Your task to perform on an android device: refresh tabs in the chrome app Image 0: 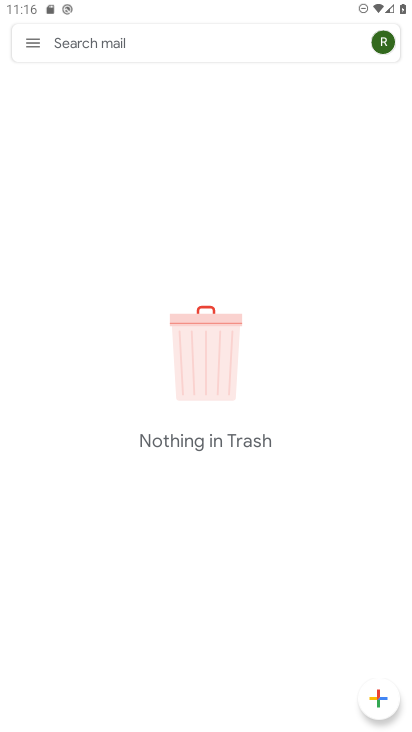
Step 0: press home button
Your task to perform on an android device: refresh tabs in the chrome app Image 1: 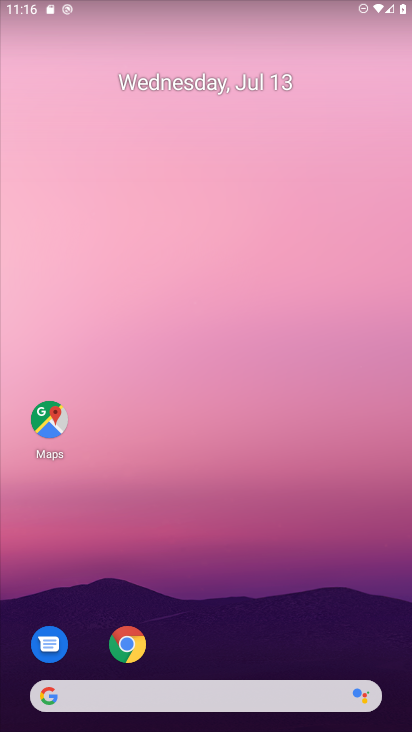
Step 1: click (125, 639)
Your task to perform on an android device: refresh tabs in the chrome app Image 2: 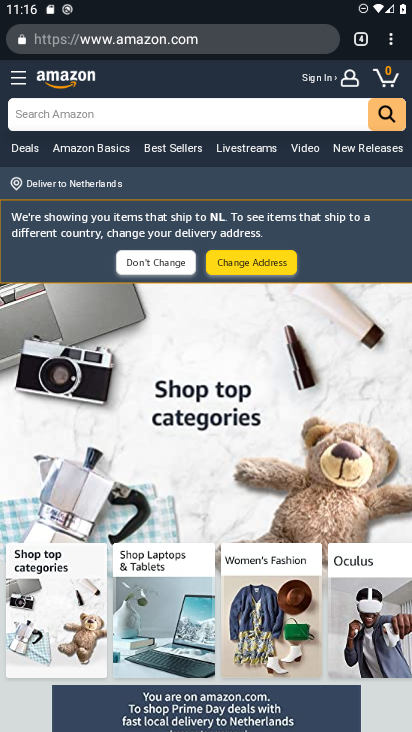
Step 2: click (394, 41)
Your task to perform on an android device: refresh tabs in the chrome app Image 3: 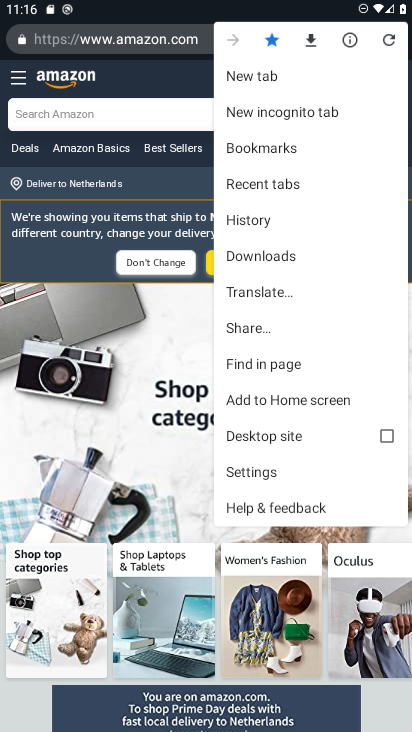
Step 3: click (394, 41)
Your task to perform on an android device: refresh tabs in the chrome app Image 4: 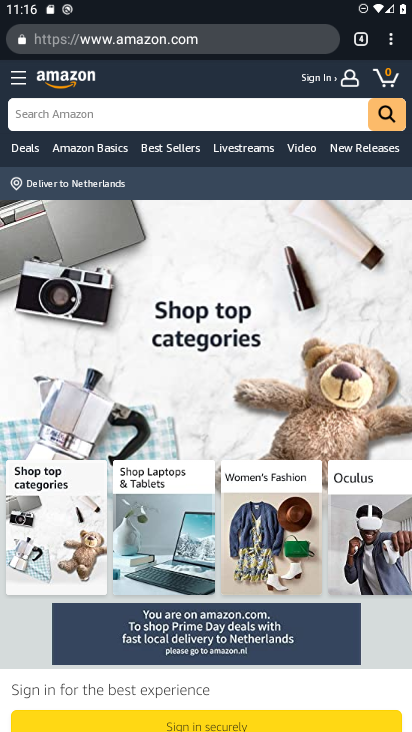
Step 4: click (391, 32)
Your task to perform on an android device: refresh tabs in the chrome app Image 5: 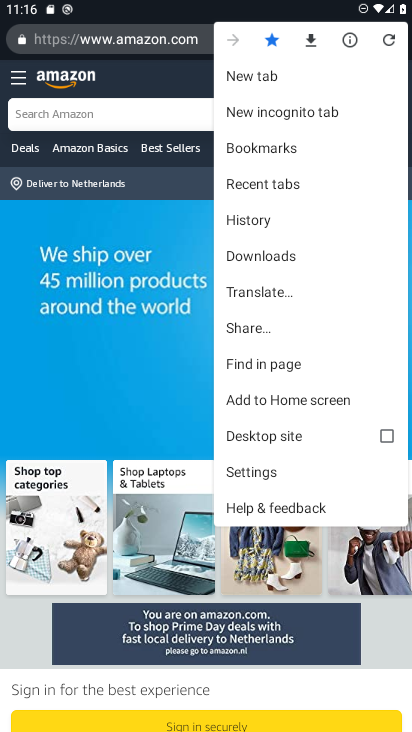
Step 5: click (390, 36)
Your task to perform on an android device: refresh tabs in the chrome app Image 6: 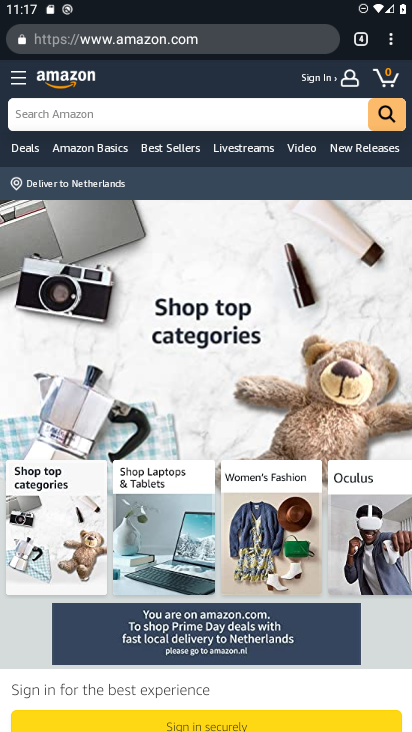
Step 6: task complete